Your task to perform on an android device: Open the phone app and click the voicemail tab. Image 0: 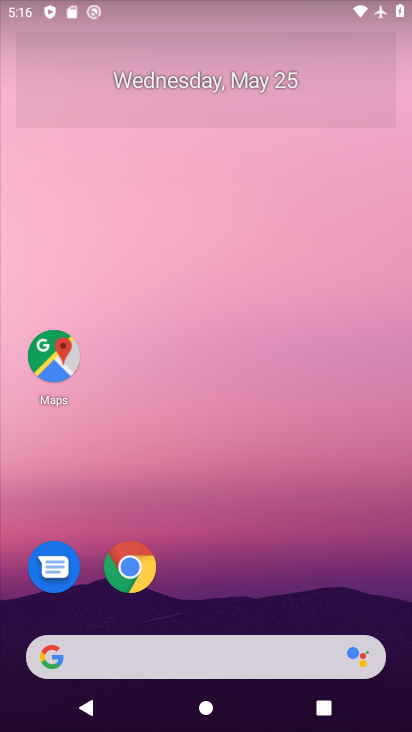
Step 0: drag from (255, 548) to (192, 50)
Your task to perform on an android device: Open the phone app and click the voicemail tab. Image 1: 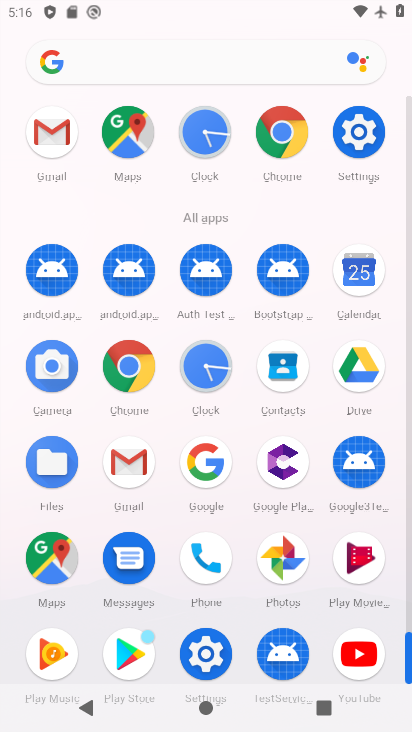
Step 1: drag from (7, 528) to (7, 187)
Your task to perform on an android device: Open the phone app and click the voicemail tab. Image 2: 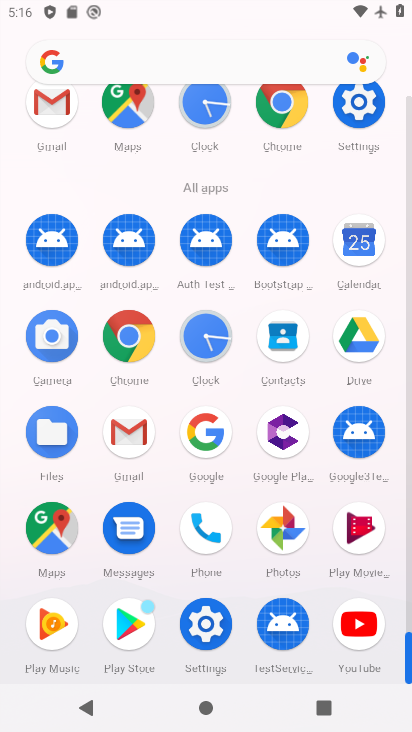
Step 2: drag from (7, 557) to (10, 304)
Your task to perform on an android device: Open the phone app and click the voicemail tab. Image 3: 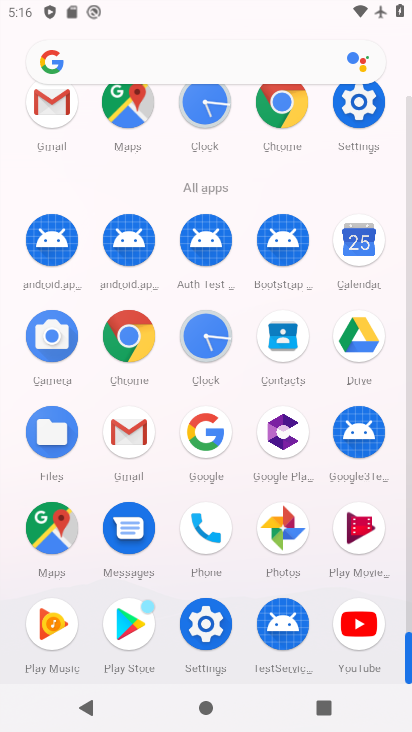
Step 3: drag from (2, 292) to (11, 545)
Your task to perform on an android device: Open the phone app and click the voicemail tab. Image 4: 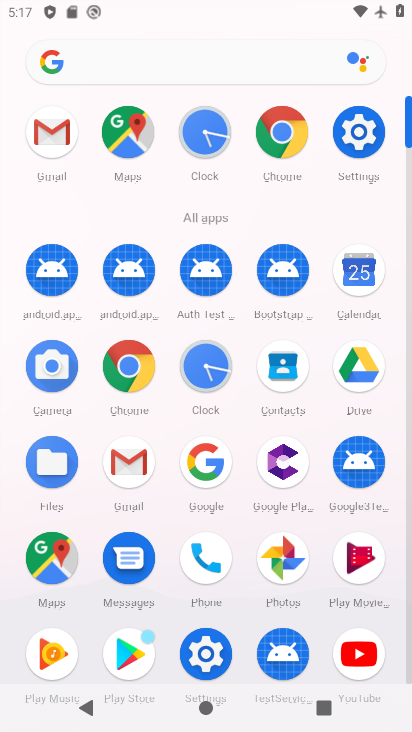
Step 4: click (202, 554)
Your task to perform on an android device: Open the phone app and click the voicemail tab. Image 5: 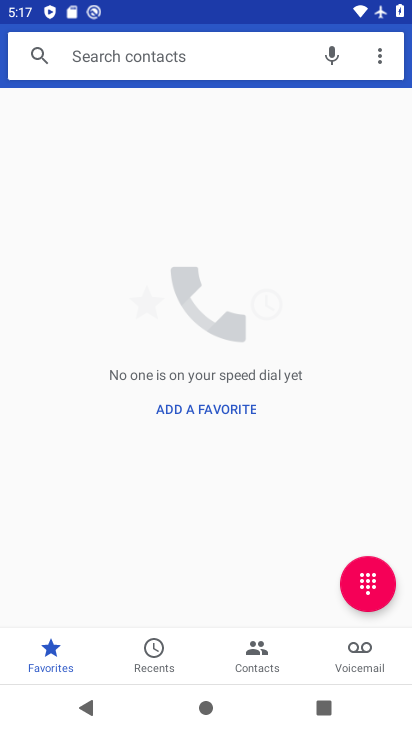
Step 5: click (345, 655)
Your task to perform on an android device: Open the phone app and click the voicemail tab. Image 6: 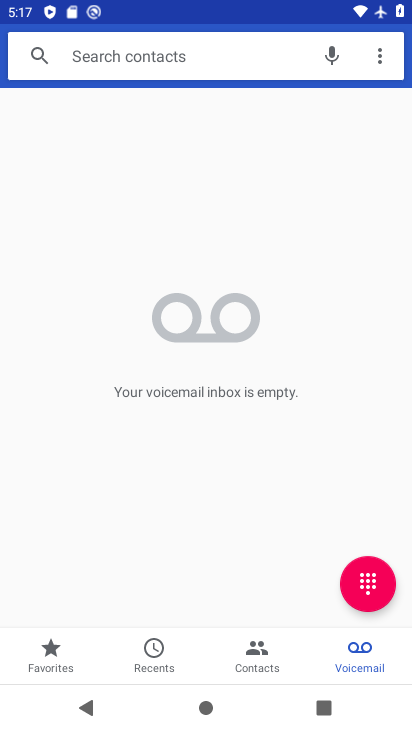
Step 6: task complete